Your task to perform on an android device: Add macbook pro to the cart on amazon Image 0: 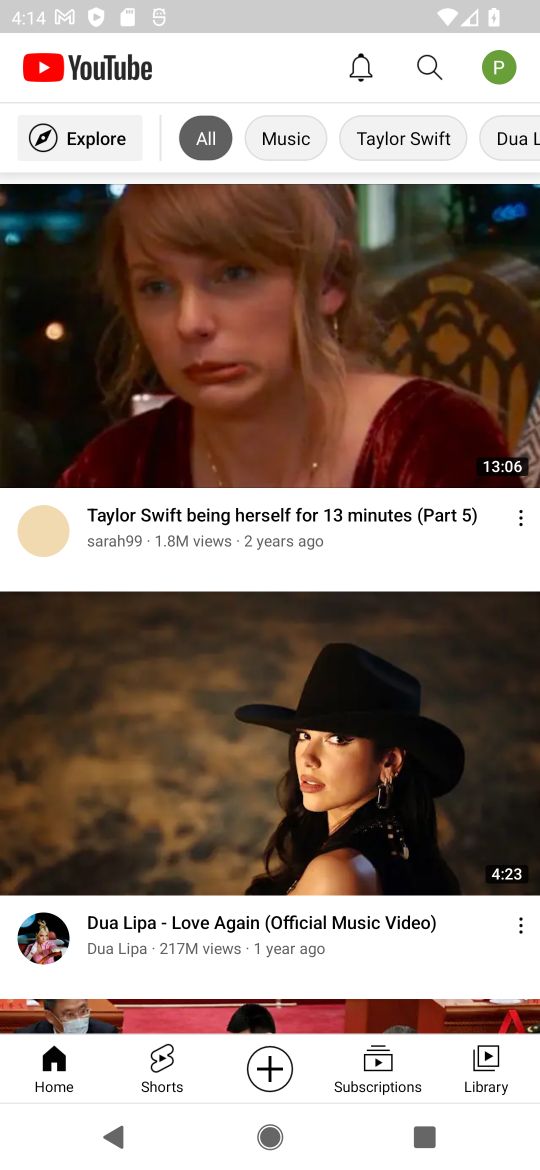
Step 0: press home button
Your task to perform on an android device: Add macbook pro to the cart on amazon Image 1: 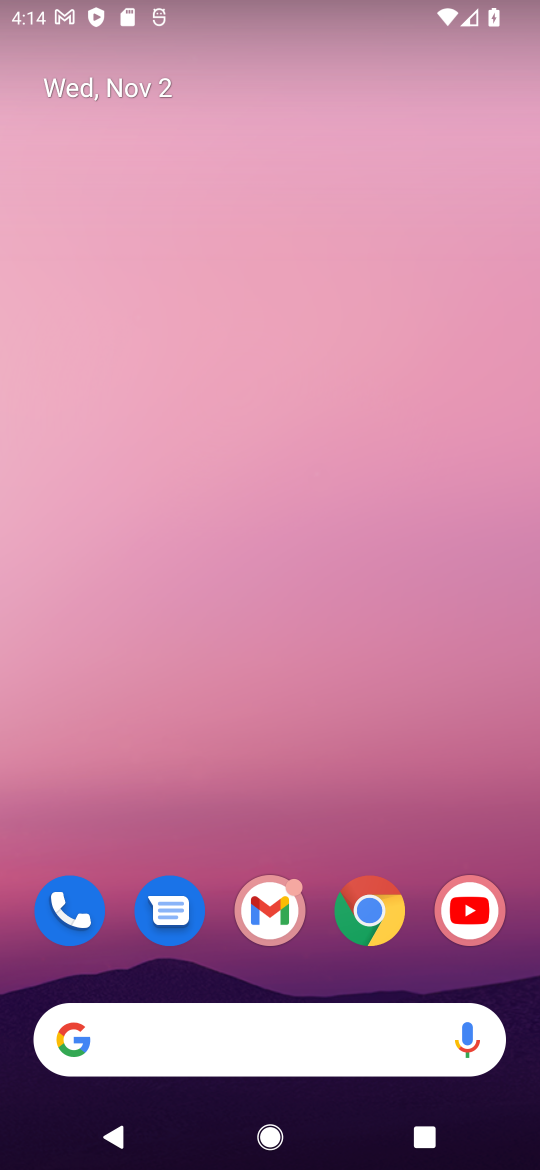
Step 1: click (360, 919)
Your task to perform on an android device: Add macbook pro to the cart on amazon Image 2: 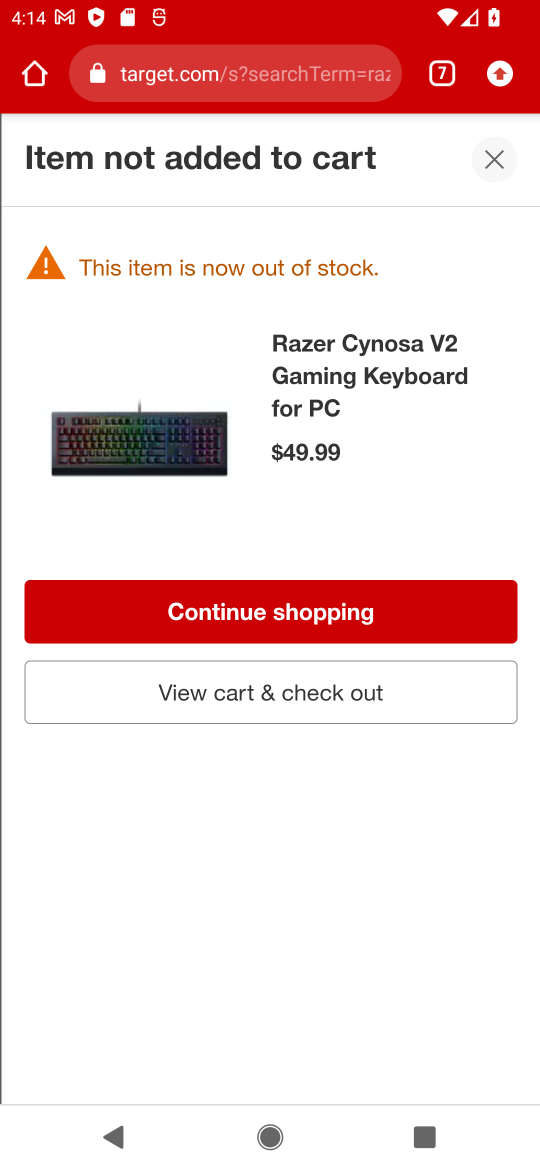
Step 2: click (435, 77)
Your task to perform on an android device: Add macbook pro to the cart on amazon Image 3: 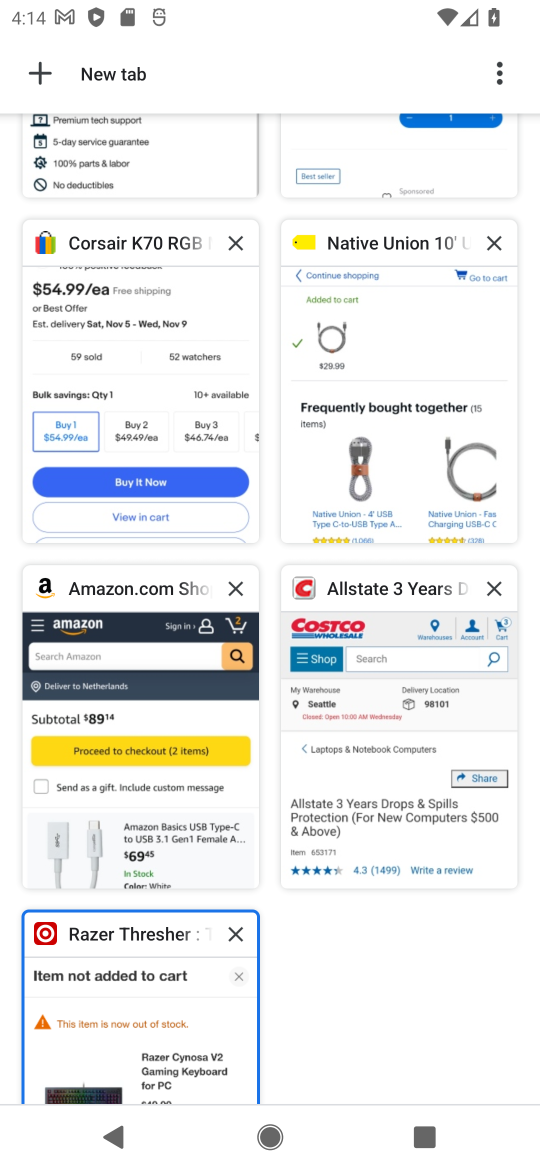
Step 3: click (158, 697)
Your task to perform on an android device: Add macbook pro to the cart on amazon Image 4: 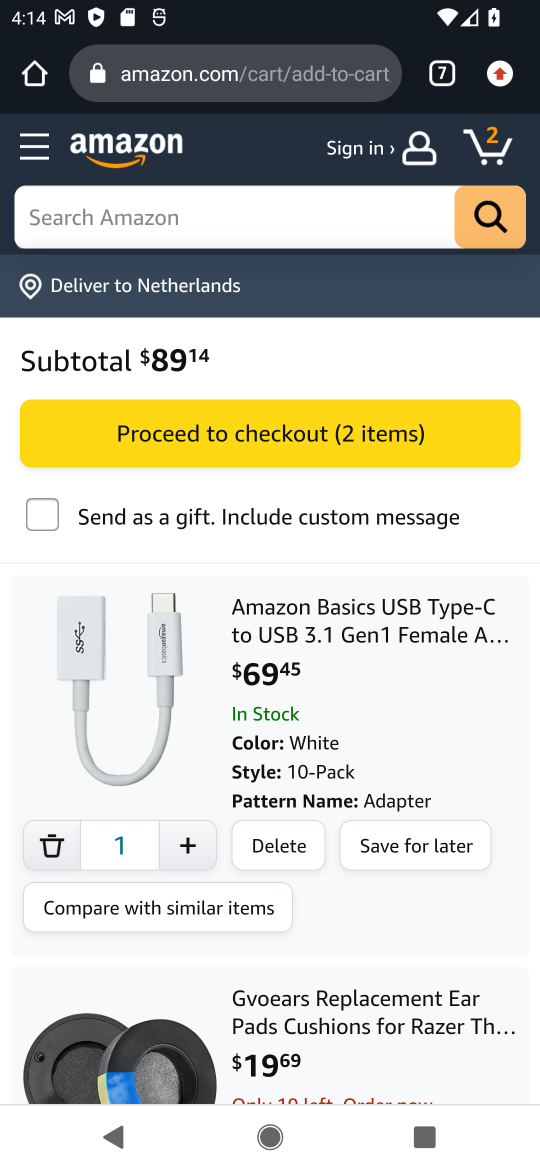
Step 4: click (189, 207)
Your task to perform on an android device: Add macbook pro to the cart on amazon Image 5: 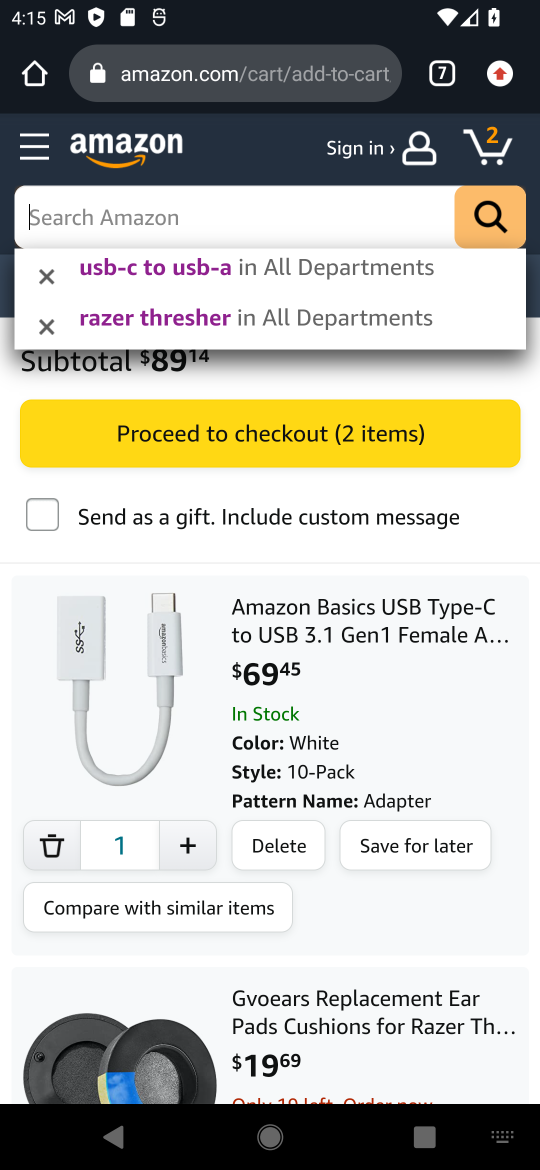
Step 5: type "macbook pro"
Your task to perform on an android device: Add macbook pro to the cart on amazon Image 6: 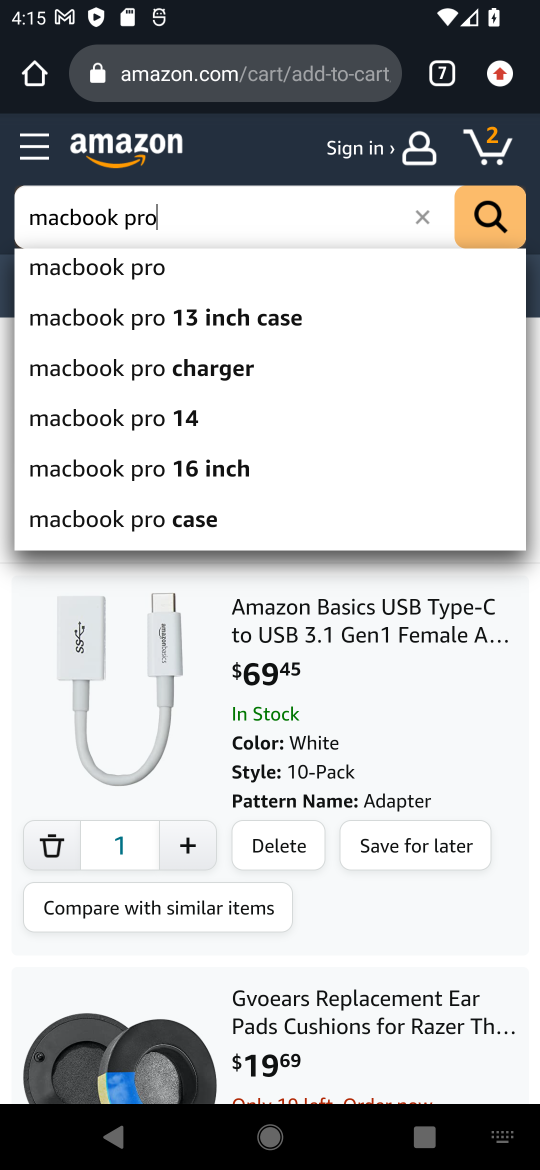
Step 6: click (82, 271)
Your task to perform on an android device: Add macbook pro to the cart on amazon Image 7: 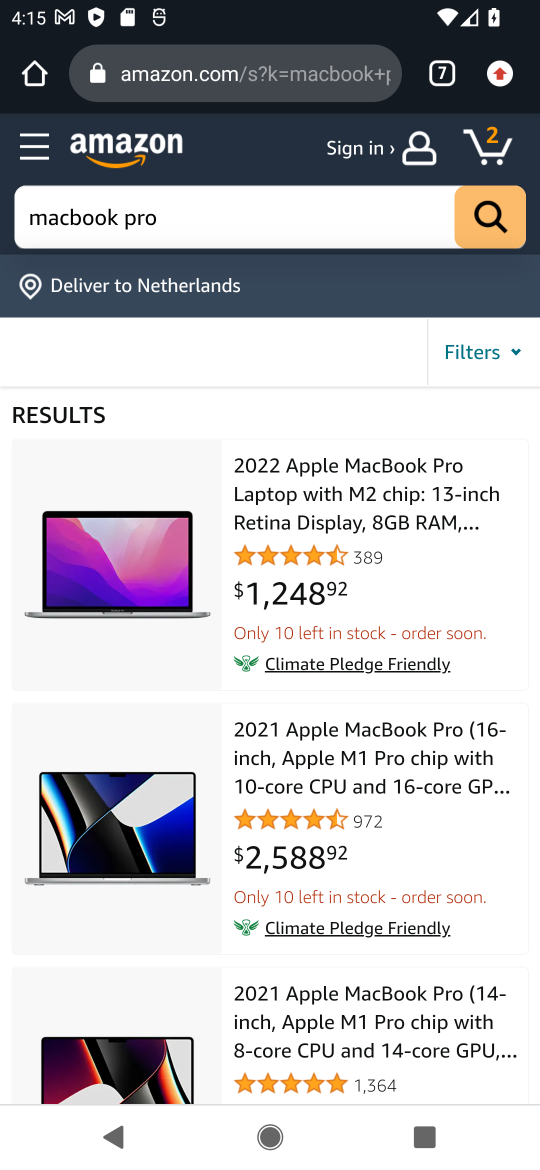
Step 7: click (328, 487)
Your task to perform on an android device: Add macbook pro to the cart on amazon Image 8: 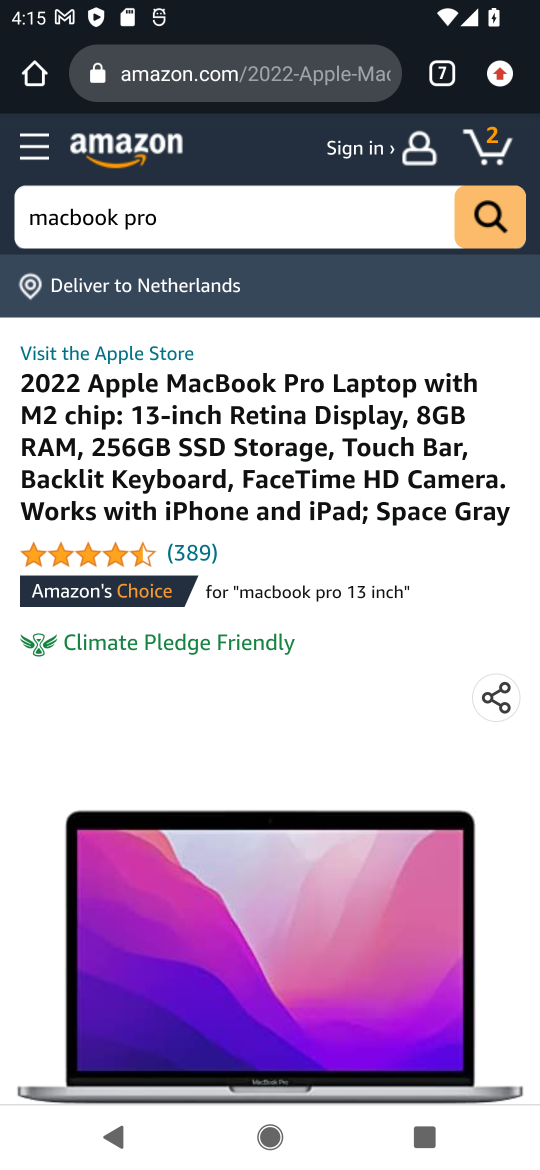
Step 8: drag from (340, 814) to (417, 365)
Your task to perform on an android device: Add macbook pro to the cart on amazon Image 9: 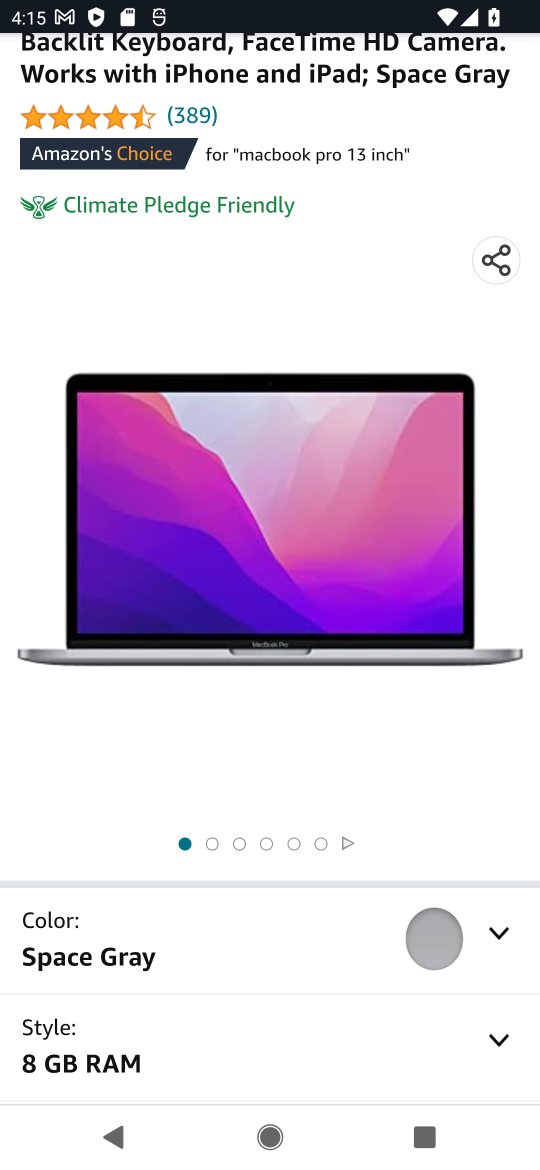
Step 9: drag from (279, 964) to (332, 216)
Your task to perform on an android device: Add macbook pro to the cart on amazon Image 10: 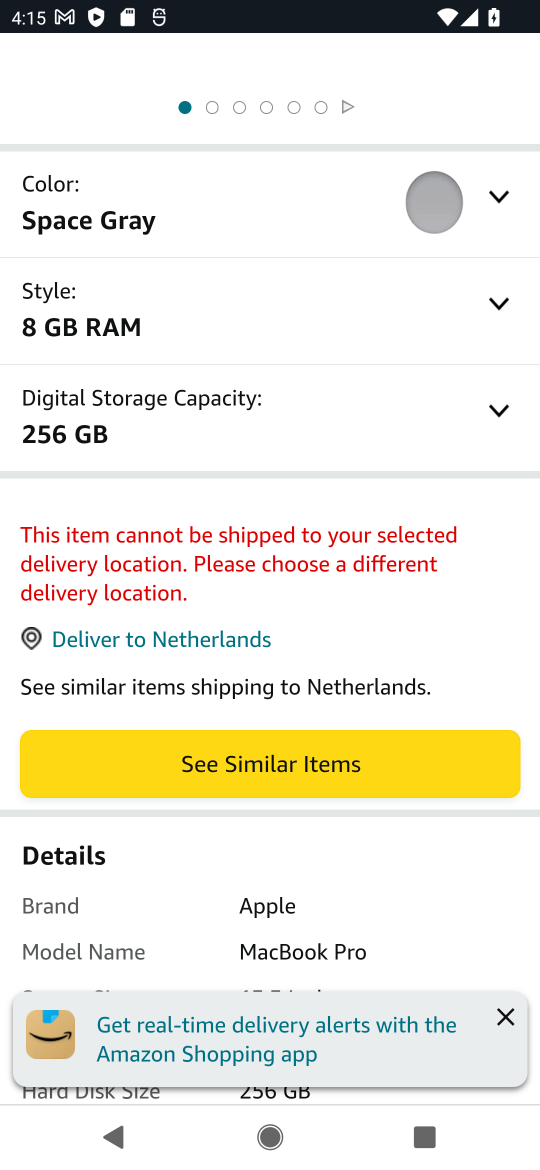
Step 10: drag from (184, 832) to (291, 597)
Your task to perform on an android device: Add macbook pro to the cart on amazon Image 11: 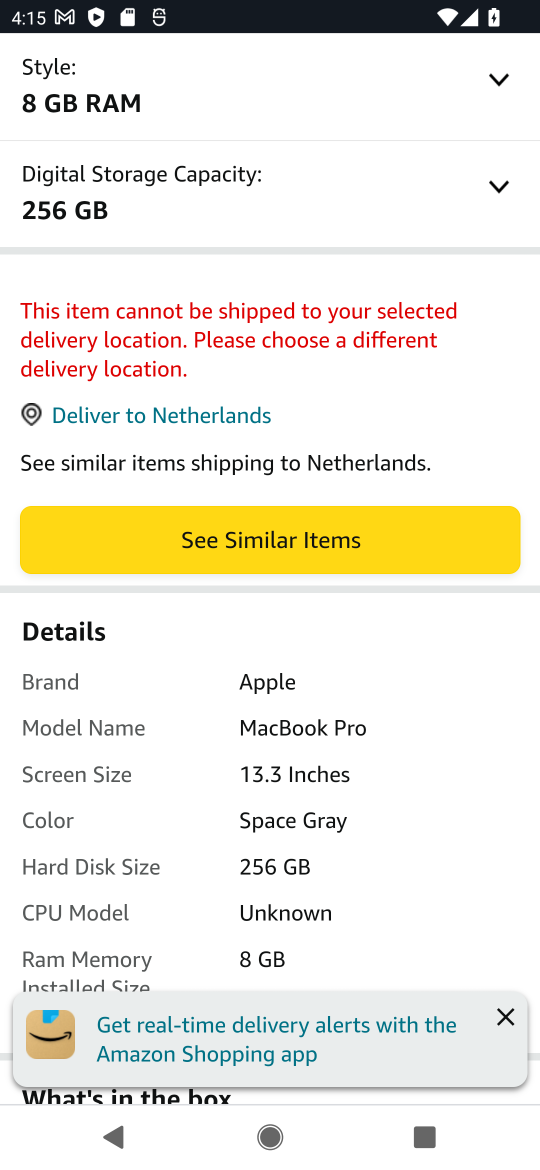
Step 11: click (299, 529)
Your task to perform on an android device: Add macbook pro to the cart on amazon Image 12: 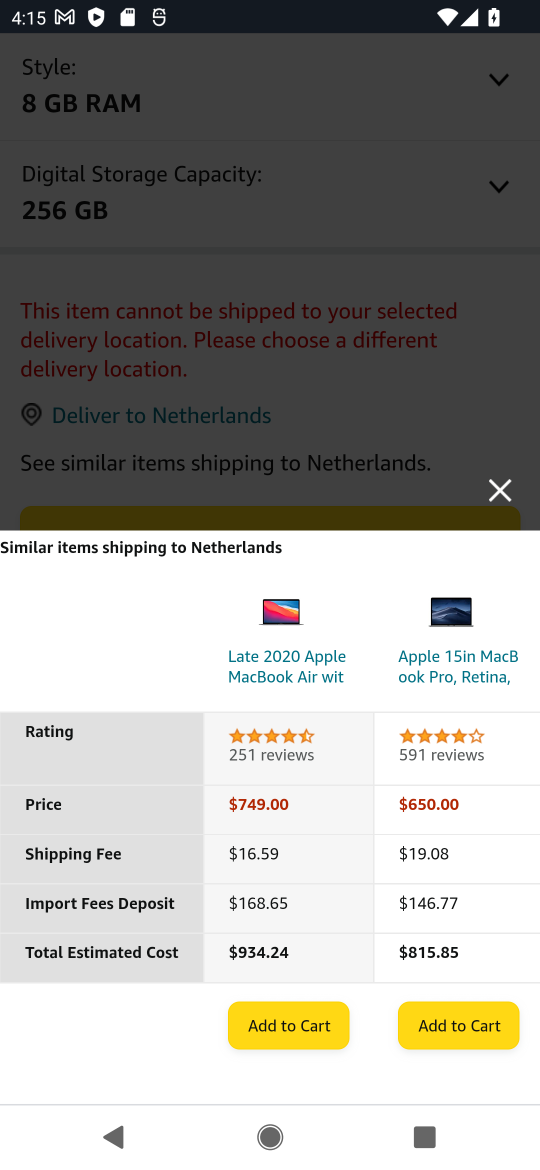
Step 12: click (310, 1028)
Your task to perform on an android device: Add macbook pro to the cart on amazon Image 13: 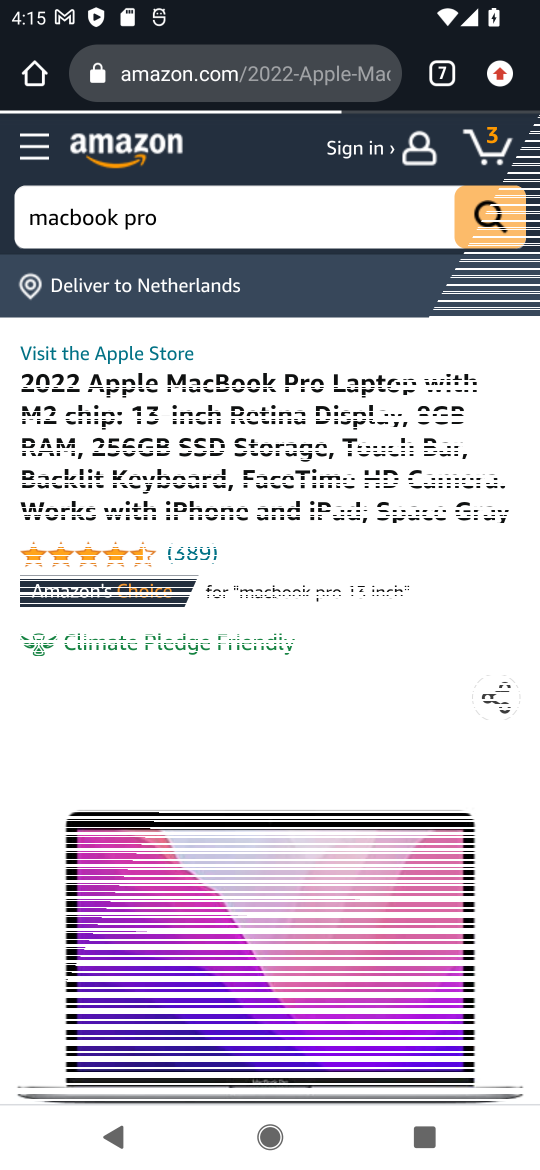
Step 13: task complete